Your task to perform on an android device: open device folders in google photos Image 0: 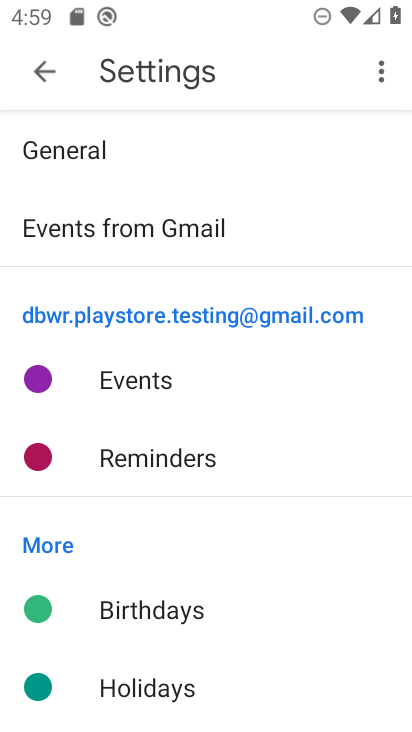
Step 0: press home button
Your task to perform on an android device: open device folders in google photos Image 1: 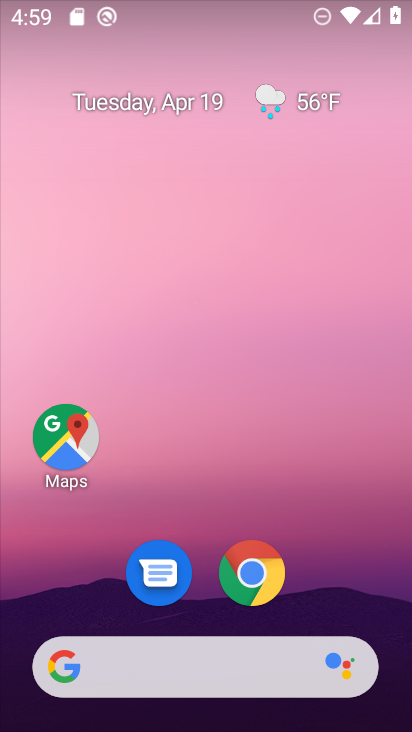
Step 1: drag from (402, 606) to (409, 107)
Your task to perform on an android device: open device folders in google photos Image 2: 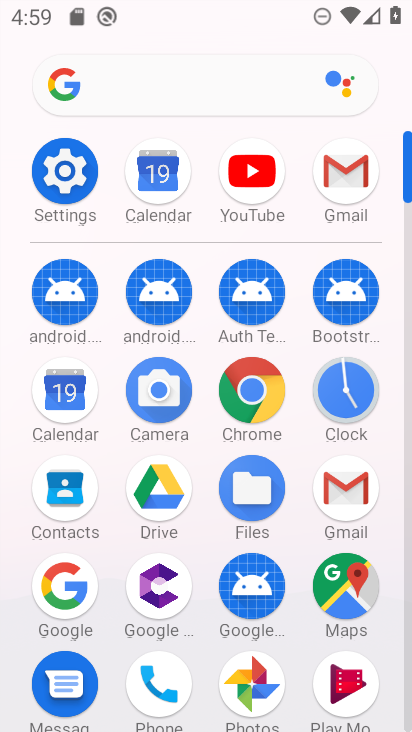
Step 2: click (252, 689)
Your task to perform on an android device: open device folders in google photos Image 3: 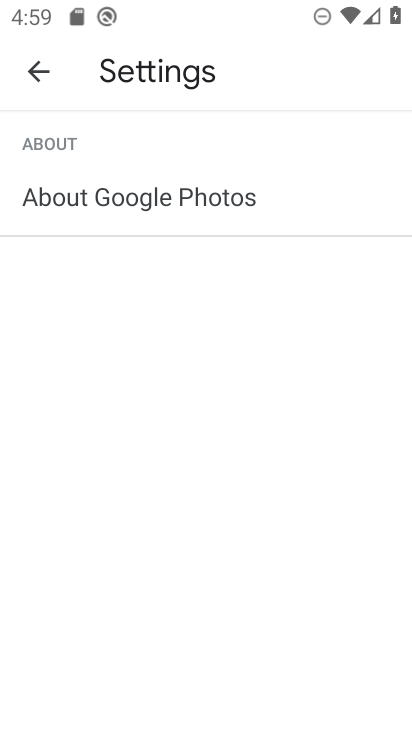
Step 3: click (37, 76)
Your task to perform on an android device: open device folders in google photos Image 4: 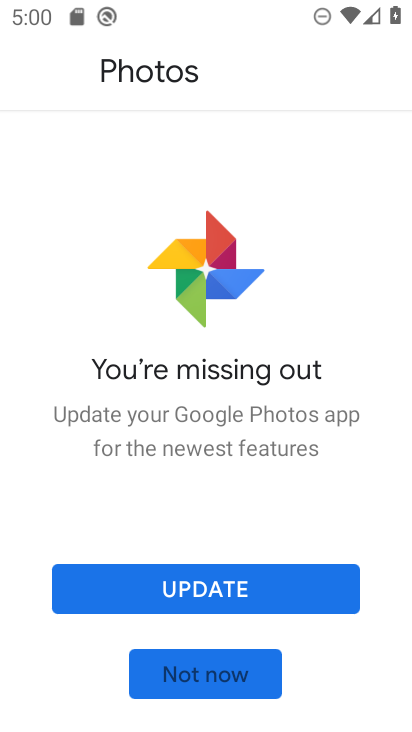
Step 4: click (222, 670)
Your task to perform on an android device: open device folders in google photos Image 5: 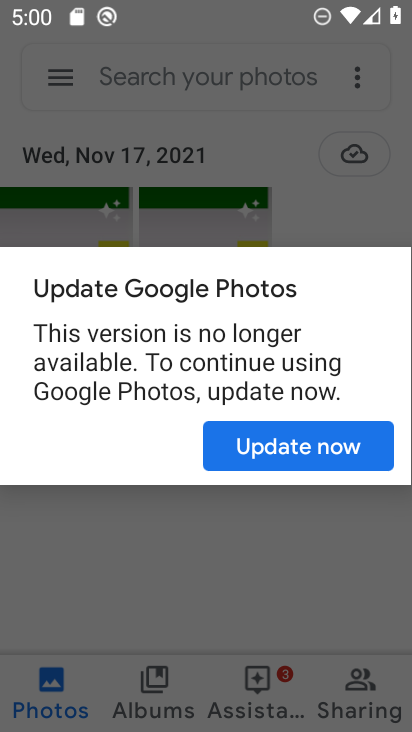
Step 5: click (295, 457)
Your task to perform on an android device: open device folders in google photos Image 6: 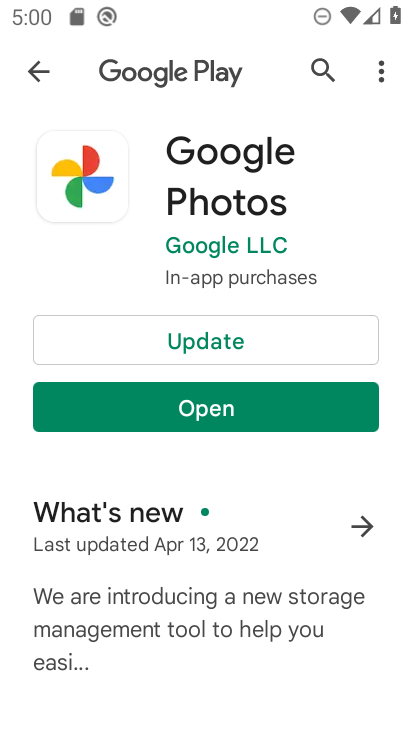
Step 6: click (205, 417)
Your task to perform on an android device: open device folders in google photos Image 7: 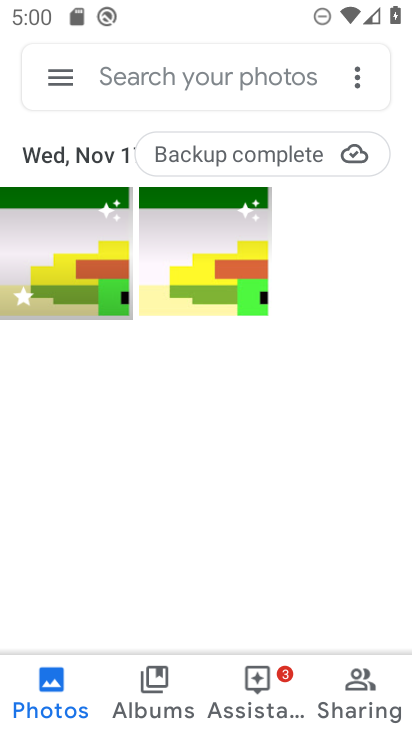
Step 7: click (48, 79)
Your task to perform on an android device: open device folders in google photos Image 8: 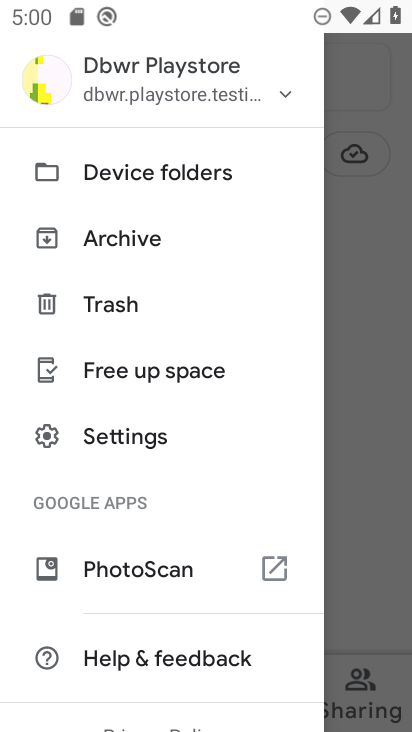
Step 8: click (121, 170)
Your task to perform on an android device: open device folders in google photos Image 9: 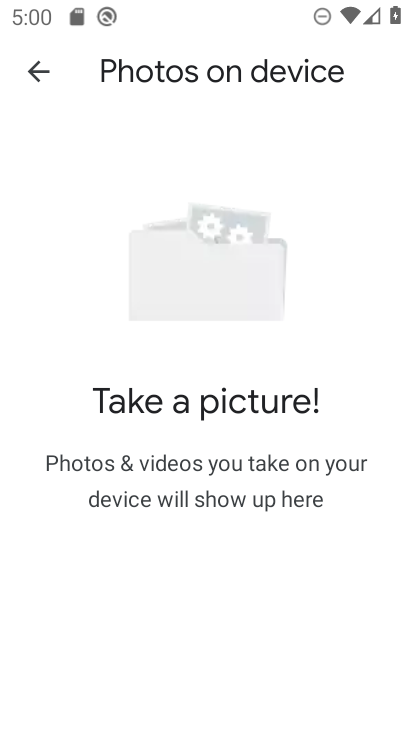
Step 9: task complete